Your task to perform on an android device: stop showing notifications on the lock screen Image 0: 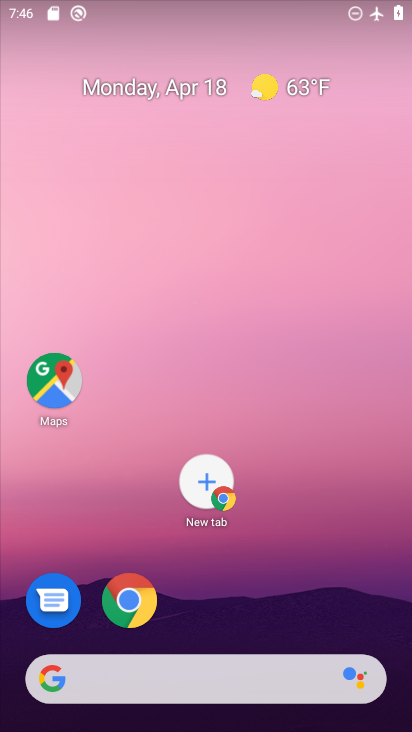
Step 0: drag from (305, 572) to (280, 4)
Your task to perform on an android device: stop showing notifications on the lock screen Image 1: 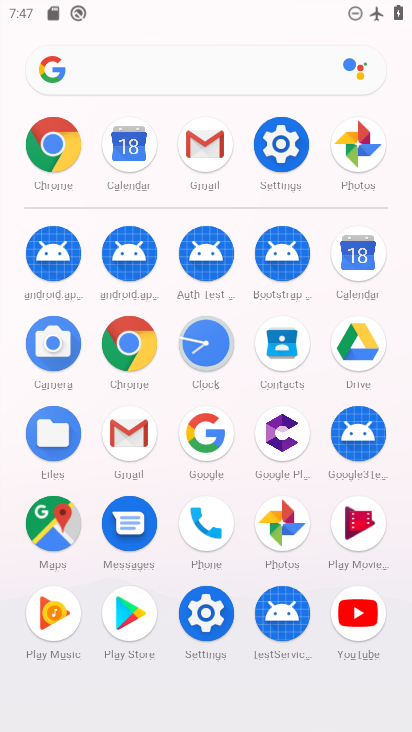
Step 1: click (283, 149)
Your task to perform on an android device: stop showing notifications on the lock screen Image 2: 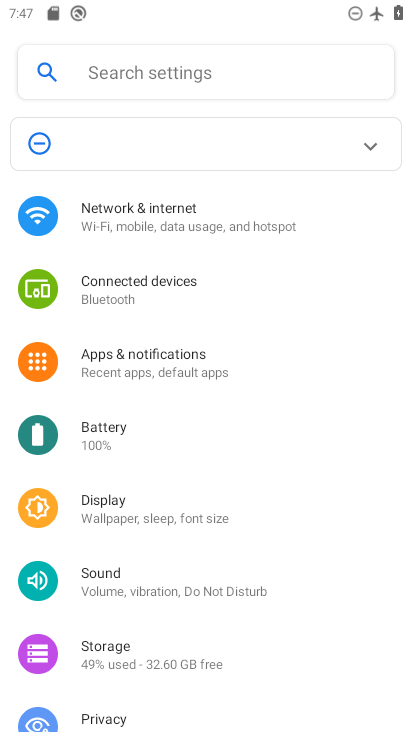
Step 2: click (179, 349)
Your task to perform on an android device: stop showing notifications on the lock screen Image 3: 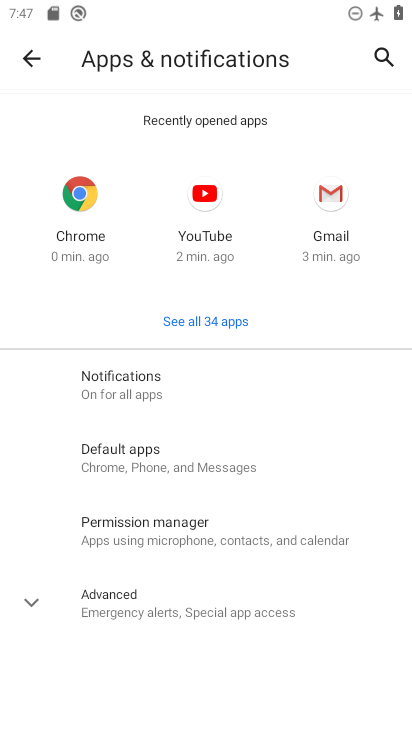
Step 3: click (124, 377)
Your task to perform on an android device: stop showing notifications on the lock screen Image 4: 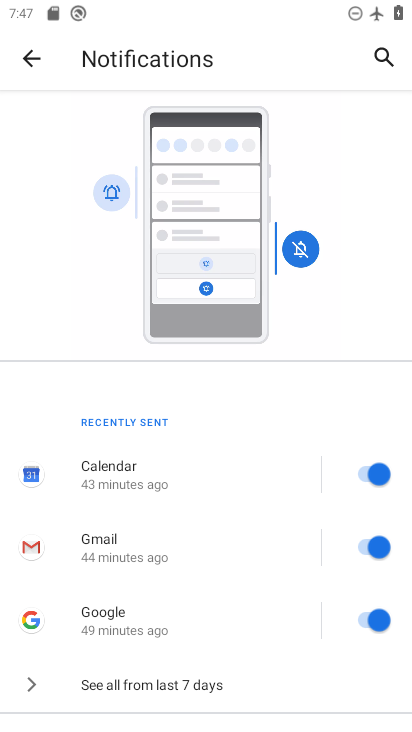
Step 4: drag from (234, 628) to (242, 93)
Your task to perform on an android device: stop showing notifications on the lock screen Image 5: 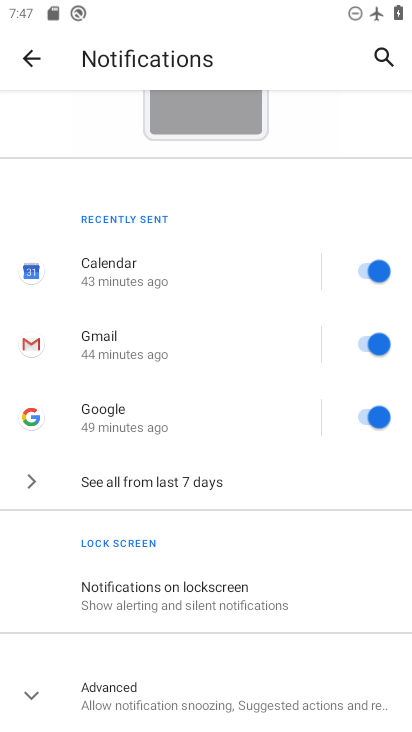
Step 5: click (171, 590)
Your task to perform on an android device: stop showing notifications on the lock screen Image 6: 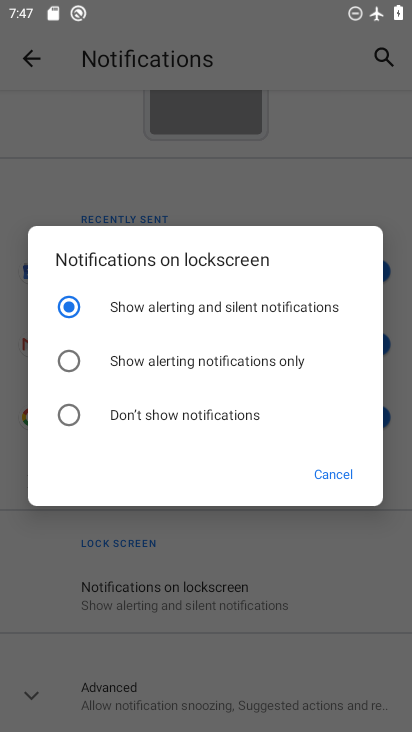
Step 6: click (65, 415)
Your task to perform on an android device: stop showing notifications on the lock screen Image 7: 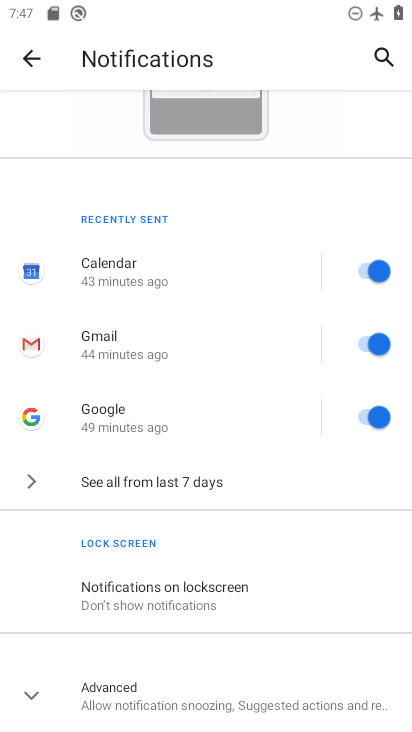
Step 7: task complete